Your task to perform on an android device: Open wifi settings Image 0: 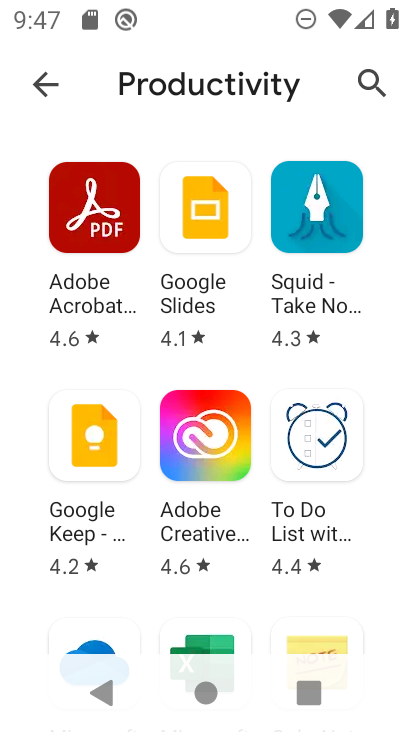
Step 0: press home button
Your task to perform on an android device: Open wifi settings Image 1: 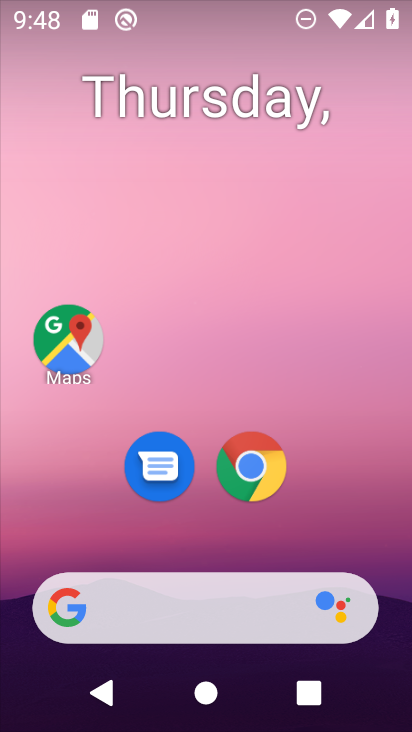
Step 1: drag from (332, 561) to (307, 58)
Your task to perform on an android device: Open wifi settings Image 2: 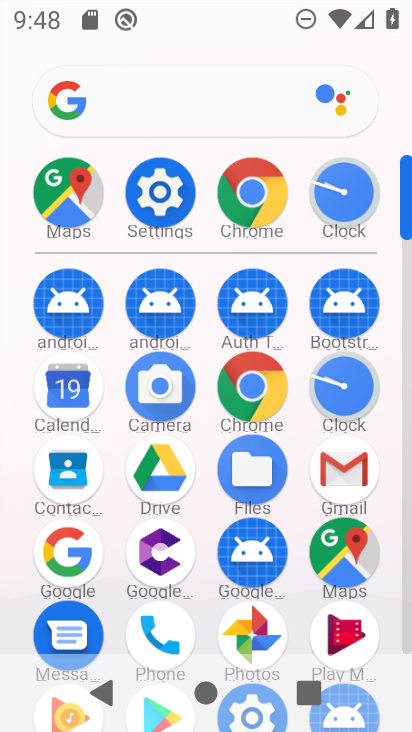
Step 2: click (182, 188)
Your task to perform on an android device: Open wifi settings Image 3: 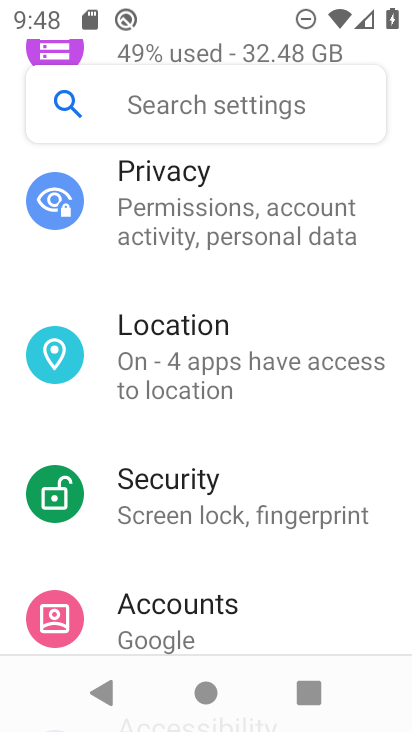
Step 3: drag from (248, 226) to (224, 712)
Your task to perform on an android device: Open wifi settings Image 4: 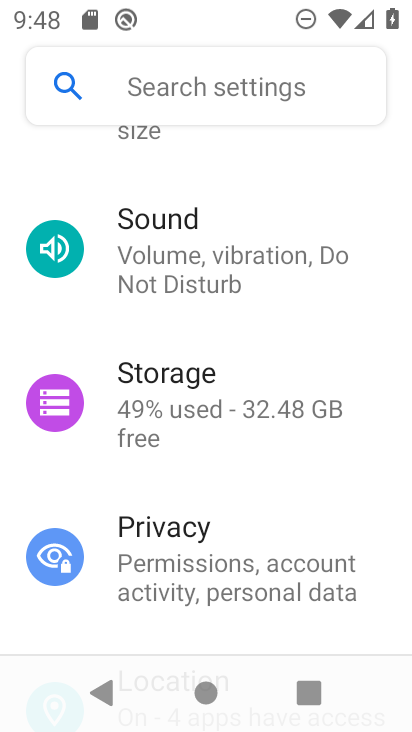
Step 4: drag from (202, 273) to (240, 674)
Your task to perform on an android device: Open wifi settings Image 5: 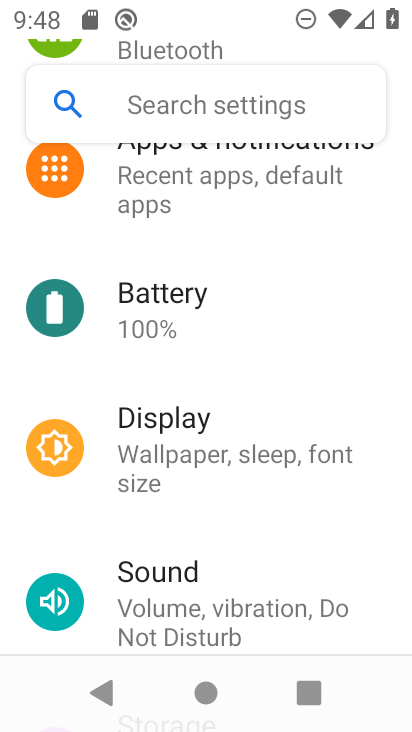
Step 5: drag from (236, 253) to (263, 643)
Your task to perform on an android device: Open wifi settings Image 6: 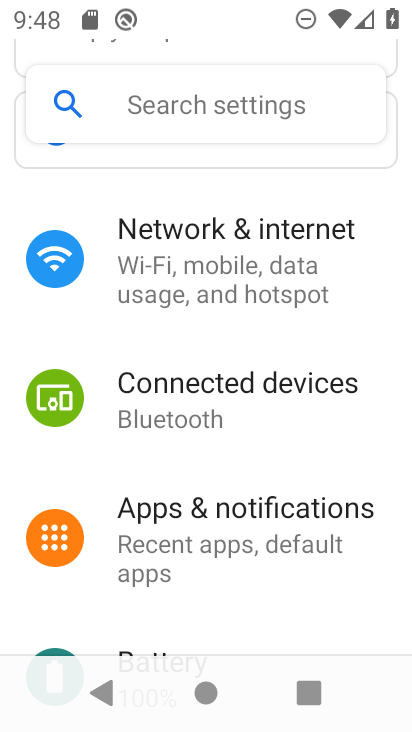
Step 6: click (241, 282)
Your task to perform on an android device: Open wifi settings Image 7: 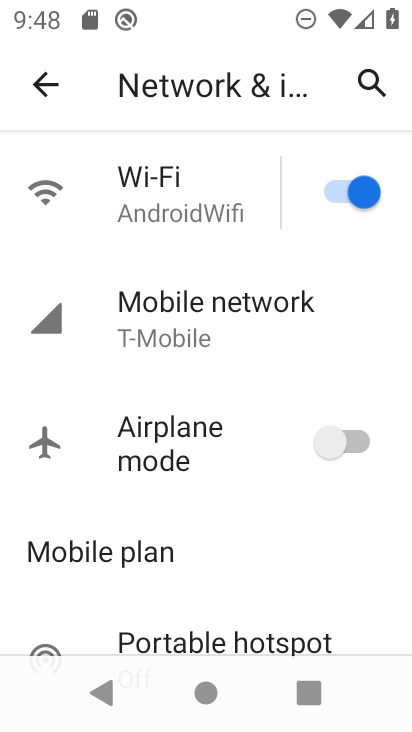
Step 7: click (202, 191)
Your task to perform on an android device: Open wifi settings Image 8: 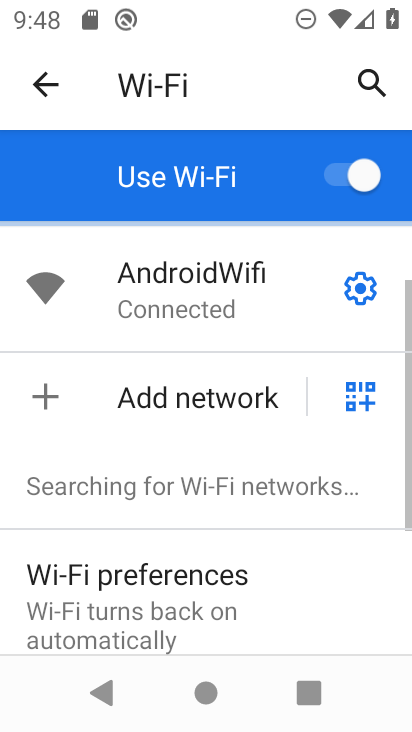
Step 8: task complete